Your task to perform on an android device: Go to display settings Image 0: 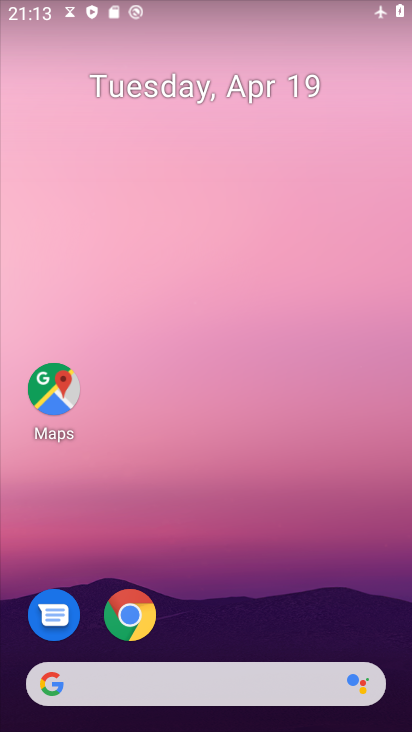
Step 0: drag from (364, 580) to (4, 3)
Your task to perform on an android device: Go to display settings Image 1: 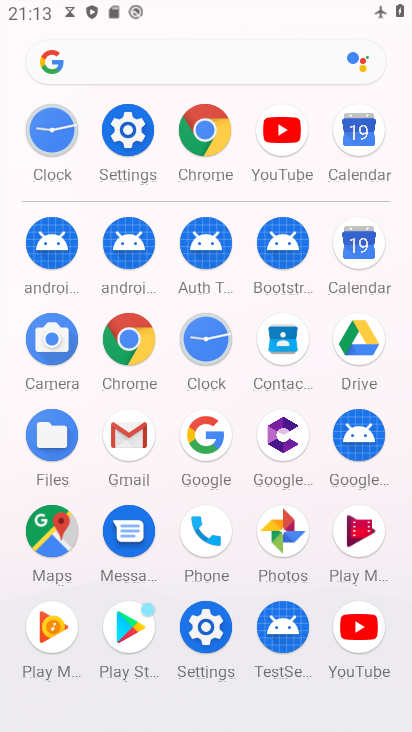
Step 1: drag from (18, 518) to (6, 296)
Your task to perform on an android device: Go to display settings Image 2: 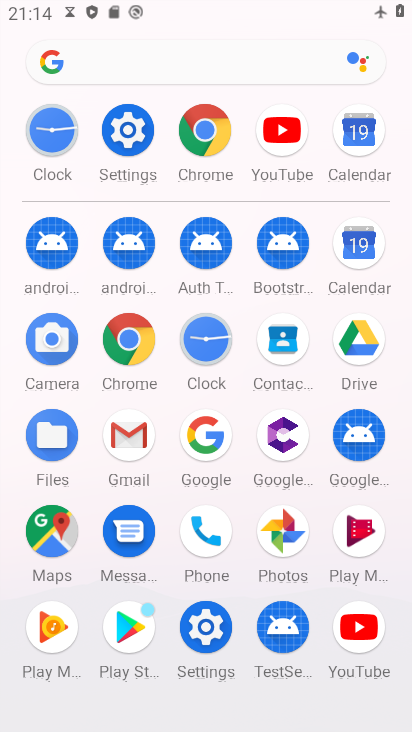
Step 2: click (205, 621)
Your task to perform on an android device: Go to display settings Image 3: 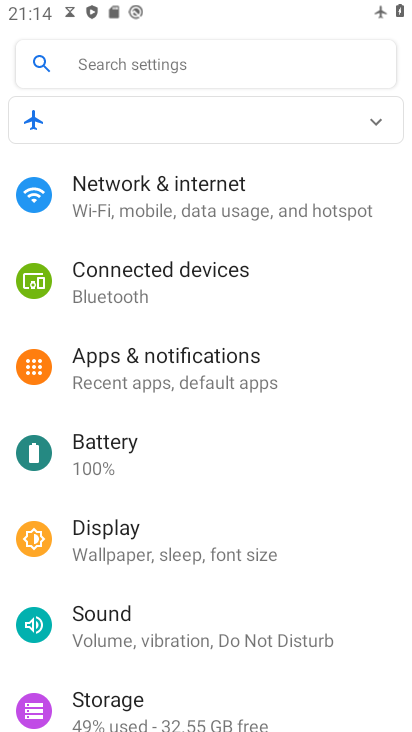
Step 3: click (158, 561)
Your task to perform on an android device: Go to display settings Image 4: 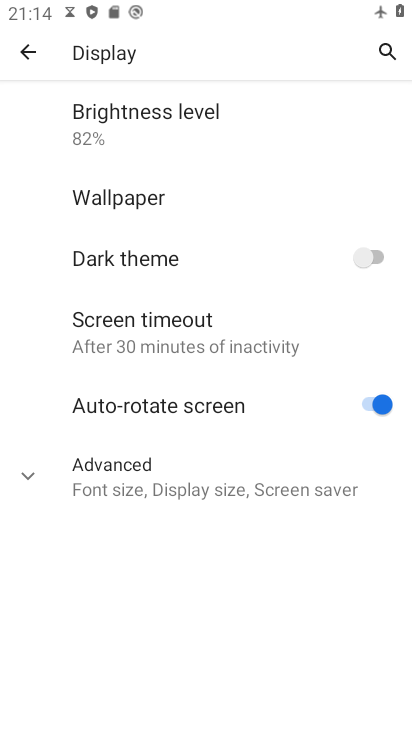
Step 4: click (37, 479)
Your task to perform on an android device: Go to display settings Image 5: 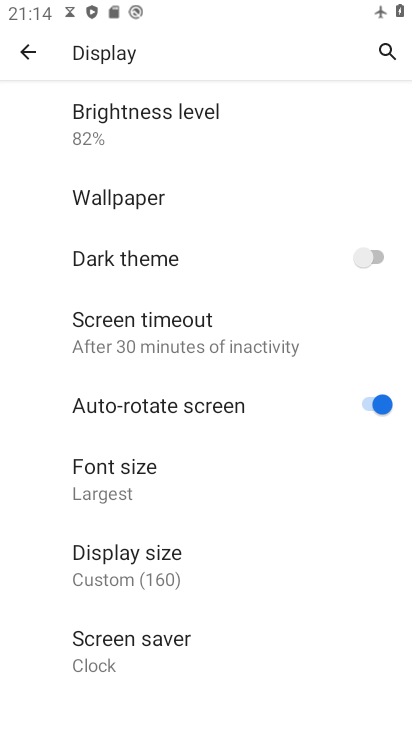
Step 5: task complete